Your task to perform on an android device: choose inbox layout in the gmail app Image 0: 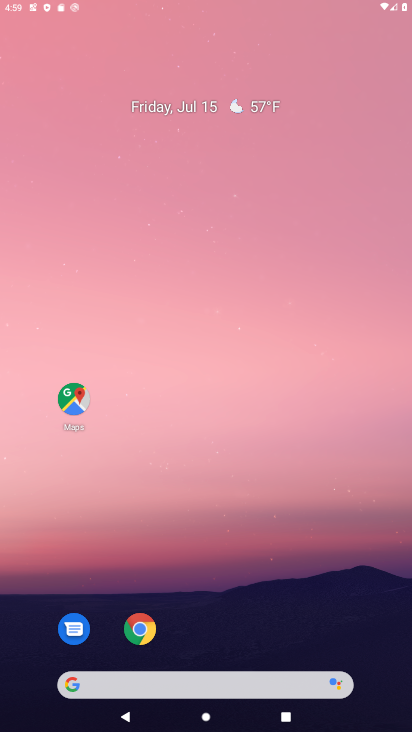
Step 0: press home button
Your task to perform on an android device: choose inbox layout in the gmail app Image 1: 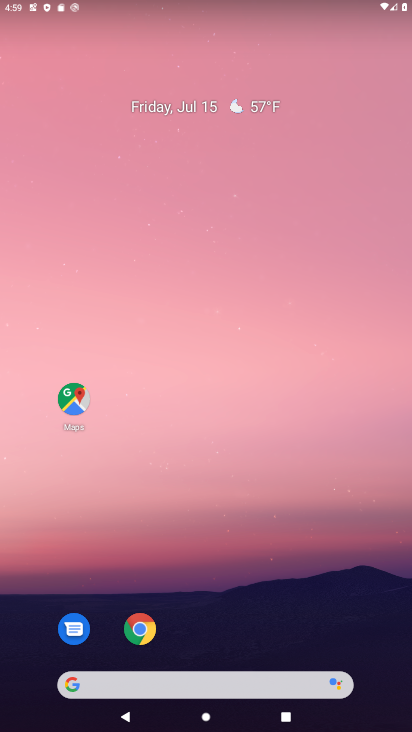
Step 1: drag from (332, 599) to (161, 692)
Your task to perform on an android device: choose inbox layout in the gmail app Image 2: 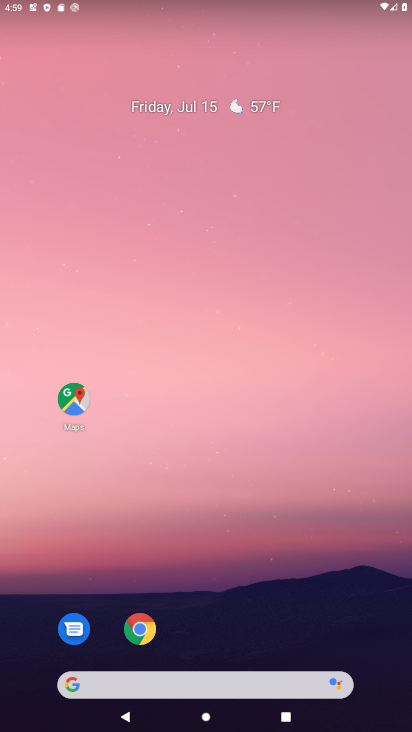
Step 2: drag from (282, 474) to (411, 459)
Your task to perform on an android device: choose inbox layout in the gmail app Image 3: 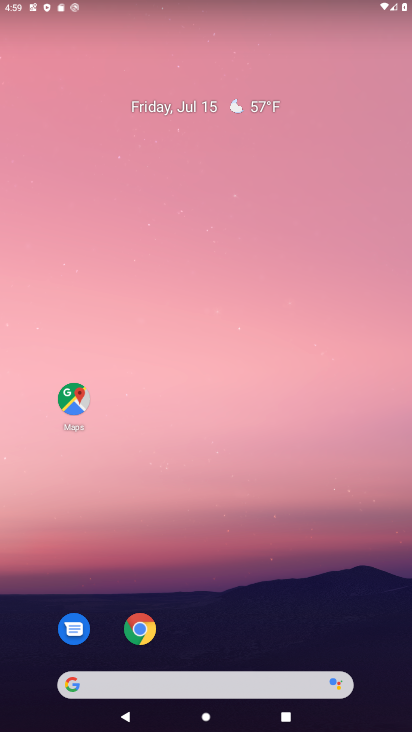
Step 3: drag from (216, 554) to (242, 5)
Your task to perform on an android device: choose inbox layout in the gmail app Image 4: 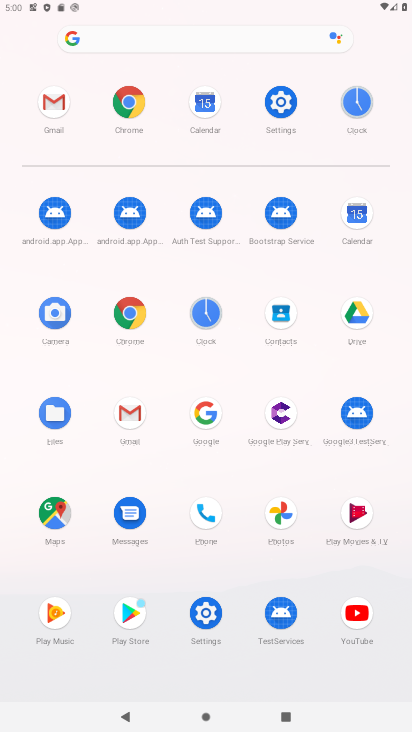
Step 4: click (47, 113)
Your task to perform on an android device: choose inbox layout in the gmail app Image 5: 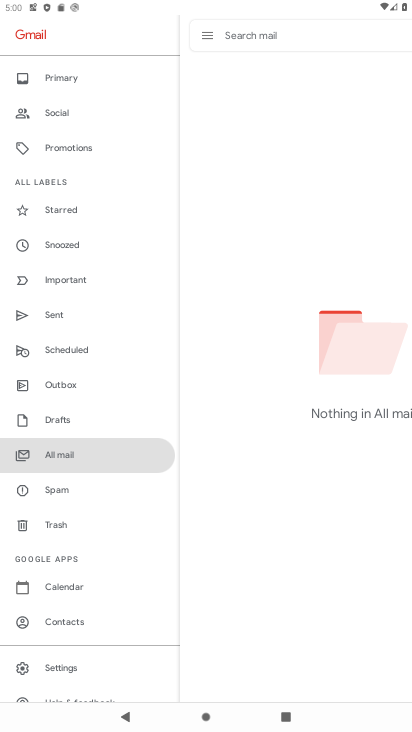
Step 5: click (73, 664)
Your task to perform on an android device: choose inbox layout in the gmail app Image 6: 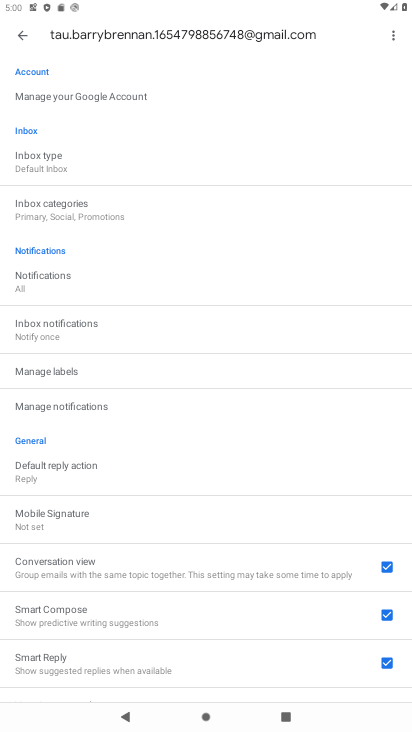
Step 6: click (77, 209)
Your task to perform on an android device: choose inbox layout in the gmail app Image 7: 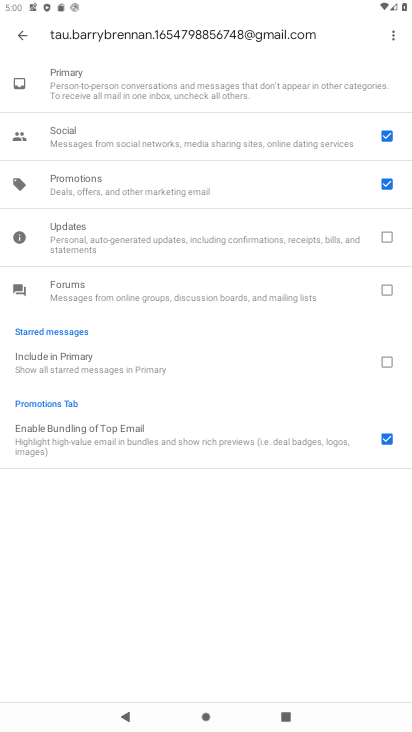
Step 7: click (375, 135)
Your task to perform on an android device: choose inbox layout in the gmail app Image 8: 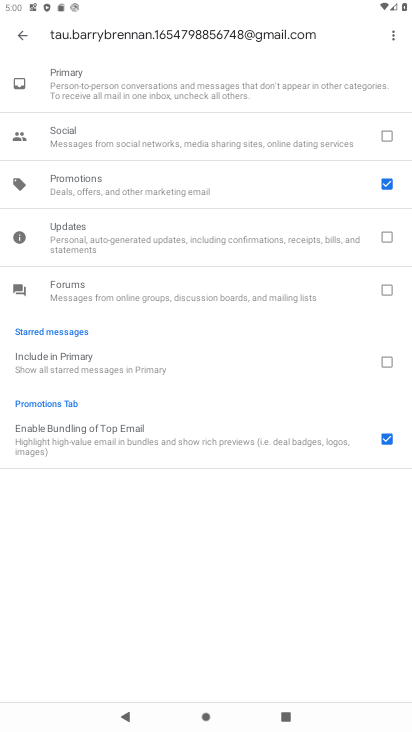
Step 8: click (385, 182)
Your task to perform on an android device: choose inbox layout in the gmail app Image 9: 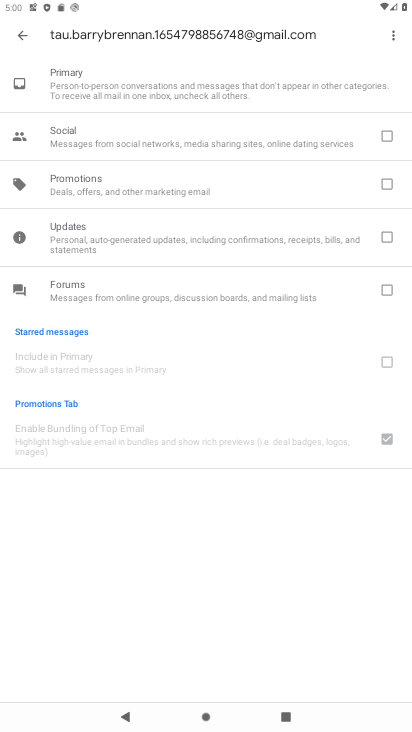
Step 9: click (387, 442)
Your task to perform on an android device: choose inbox layout in the gmail app Image 10: 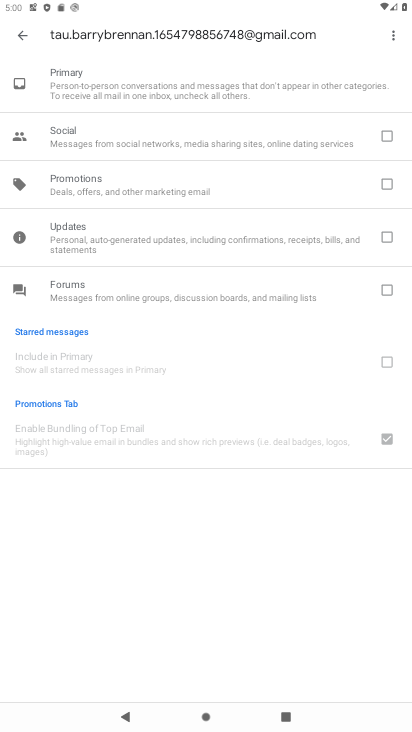
Step 10: click (394, 437)
Your task to perform on an android device: choose inbox layout in the gmail app Image 11: 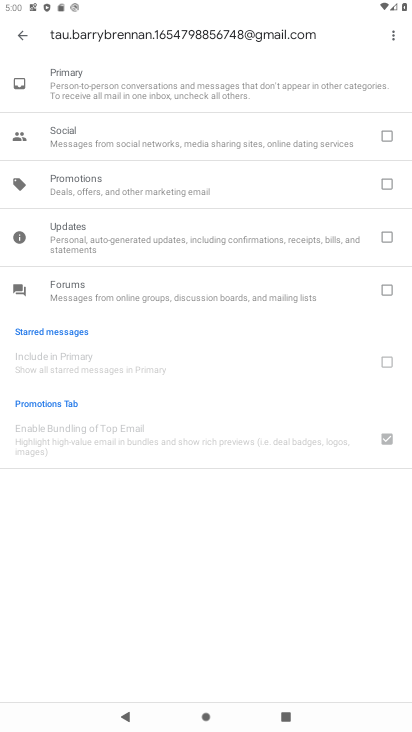
Step 11: task complete